Your task to perform on an android device: turn off location Image 0: 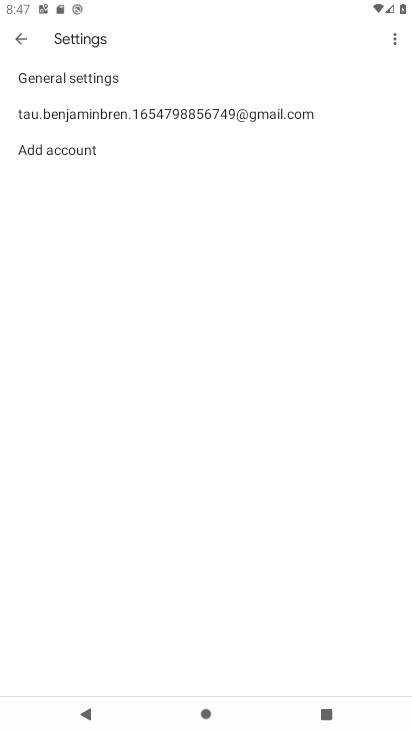
Step 0: press home button
Your task to perform on an android device: turn off location Image 1: 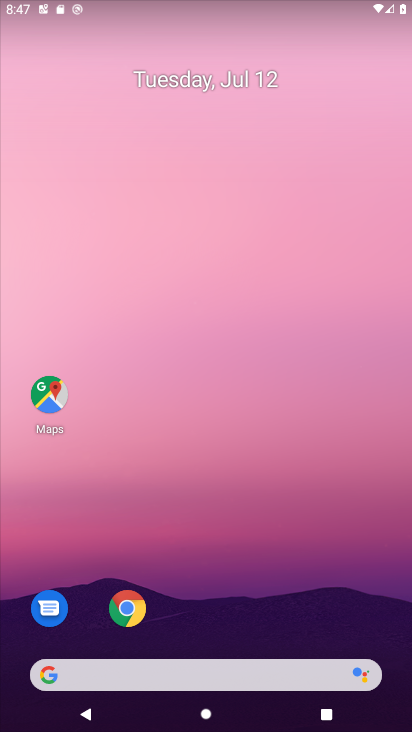
Step 1: drag from (172, 677) to (267, 71)
Your task to perform on an android device: turn off location Image 2: 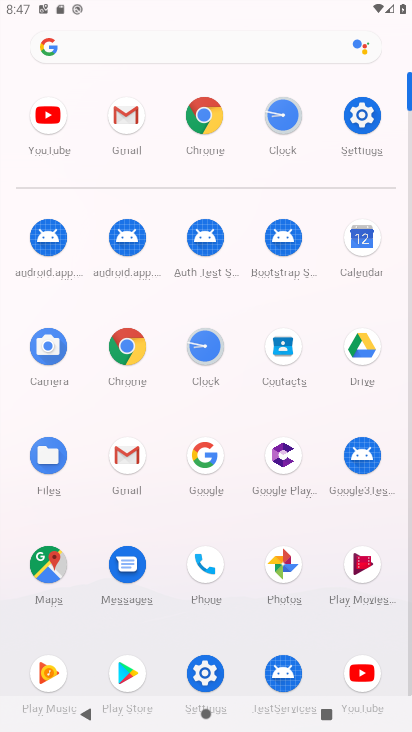
Step 2: click (357, 119)
Your task to perform on an android device: turn off location Image 3: 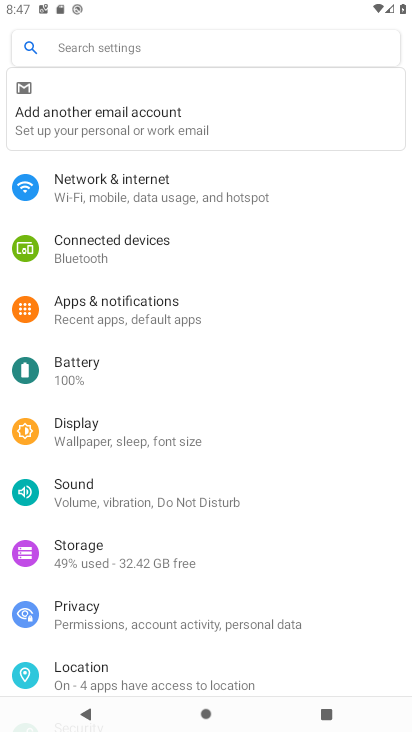
Step 3: click (130, 674)
Your task to perform on an android device: turn off location Image 4: 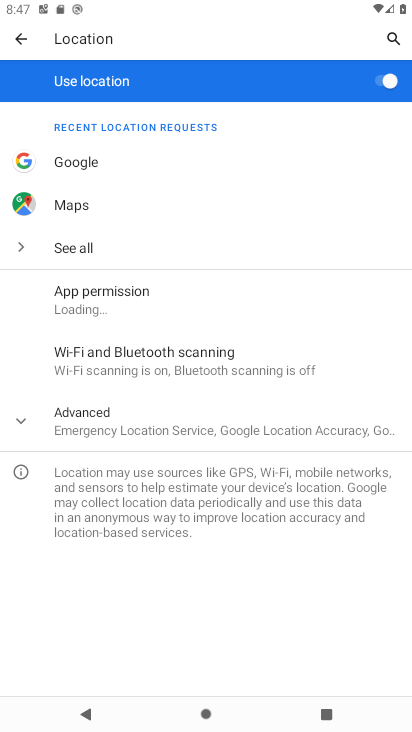
Step 4: click (380, 82)
Your task to perform on an android device: turn off location Image 5: 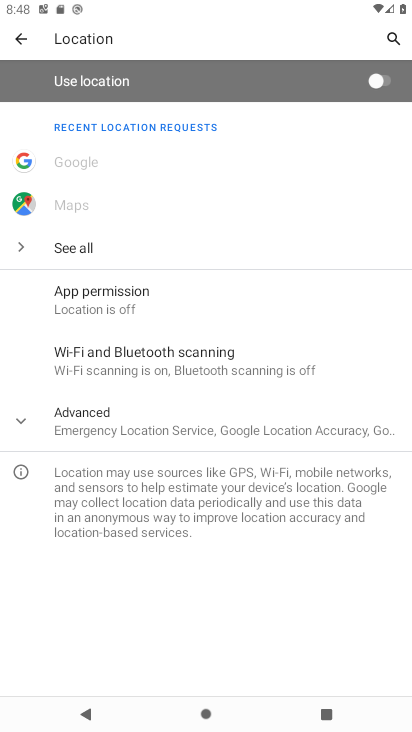
Step 5: task complete